Your task to perform on an android device: search for starred emails in the gmail app Image 0: 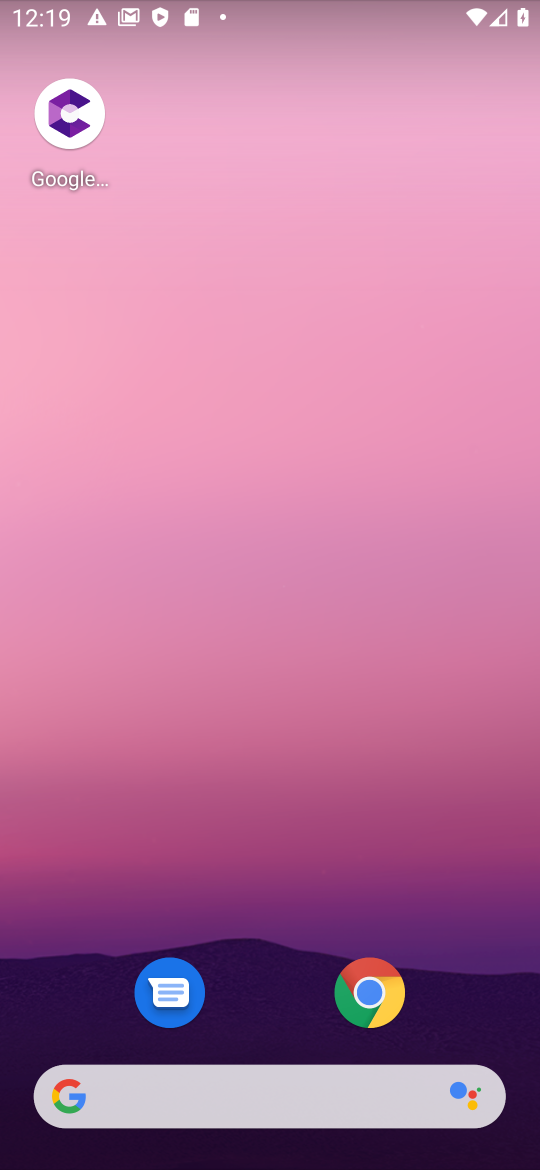
Step 0: press home button
Your task to perform on an android device: search for starred emails in the gmail app Image 1: 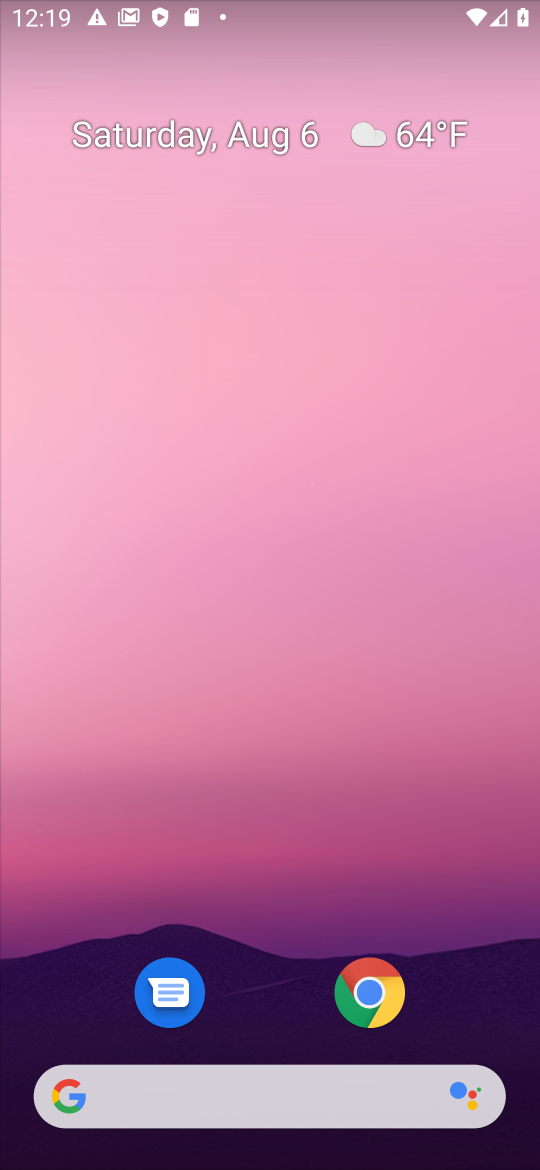
Step 1: drag from (328, 948) to (454, 361)
Your task to perform on an android device: search for starred emails in the gmail app Image 2: 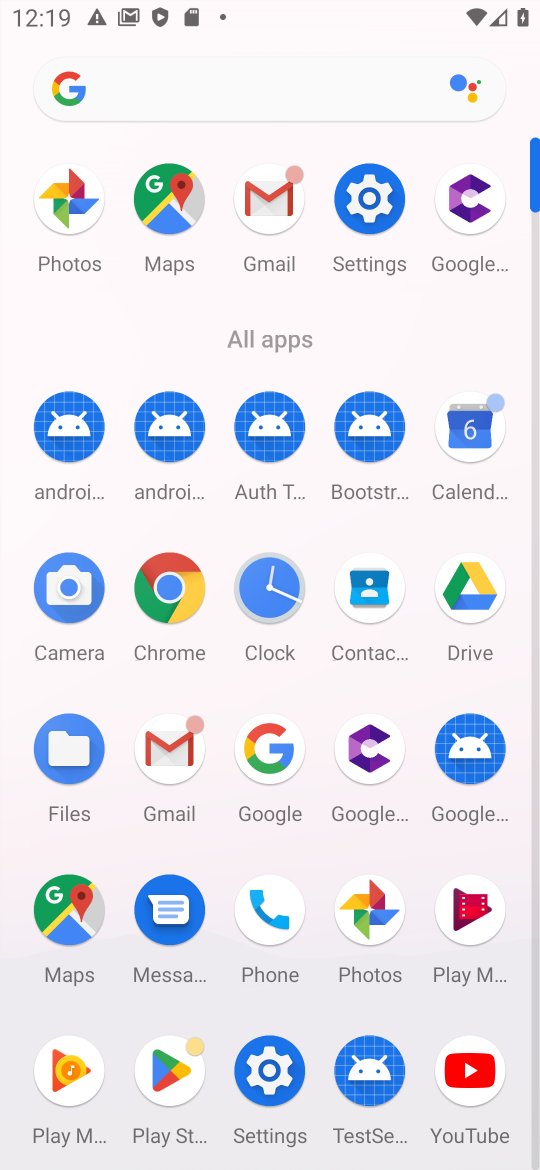
Step 2: click (261, 215)
Your task to perform on an android device: search for starred emails in the gmail app Image 3: 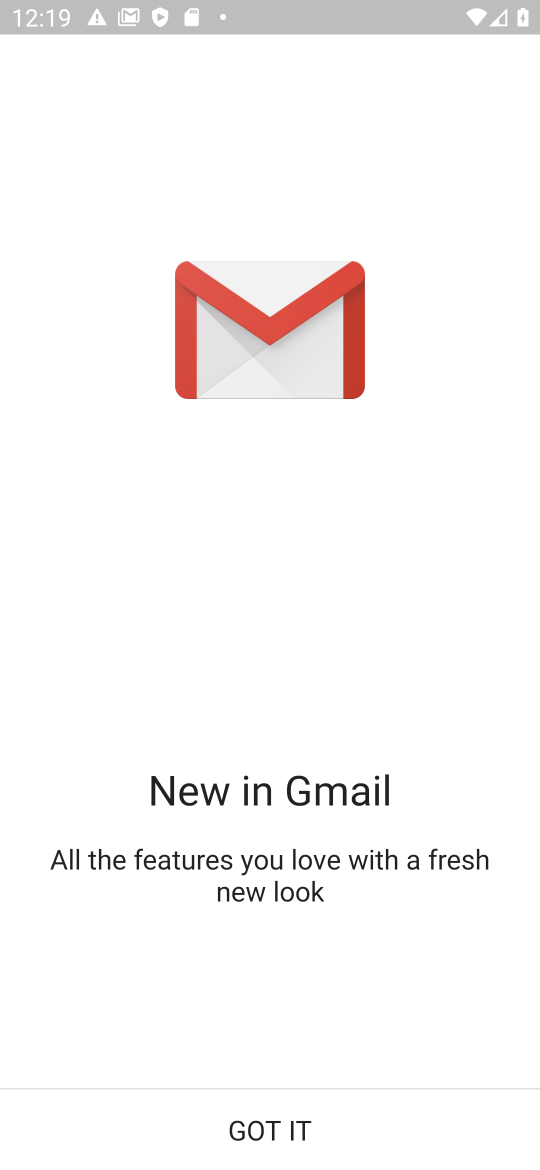
Step 3: click (279, 1129)
Your task to perform on an android device: search for starred emails in the gmail app Image 4: 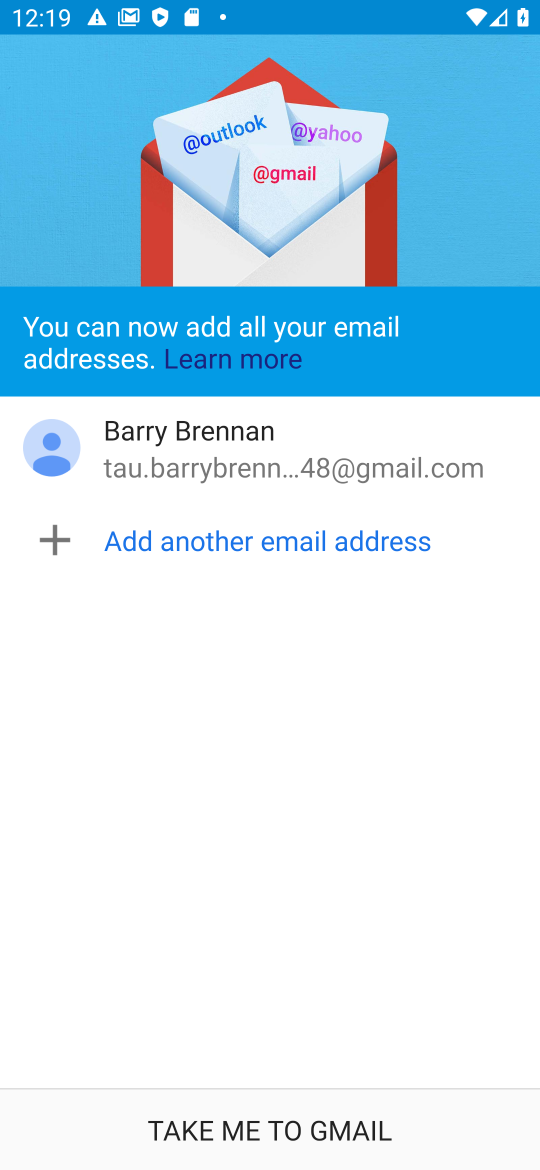
Step 4: click (279, 1130)
Your task to perform on an android device: search for starred emails in the gmail app Image 5: 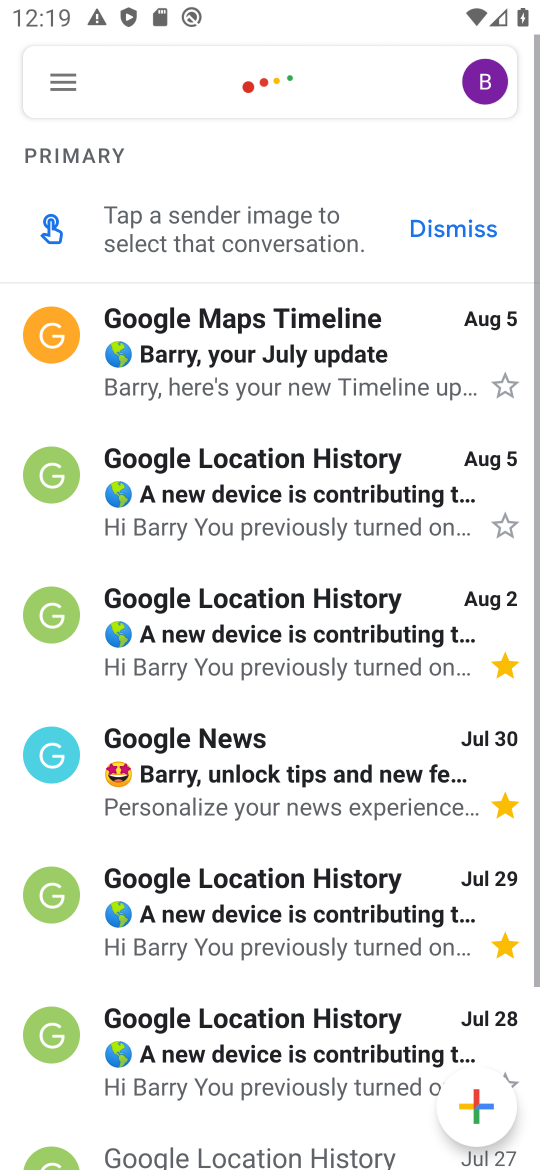
Step 5: click (48, 78)
Your task to perform on an android device: search for starred emails in the gmail app Image 6: 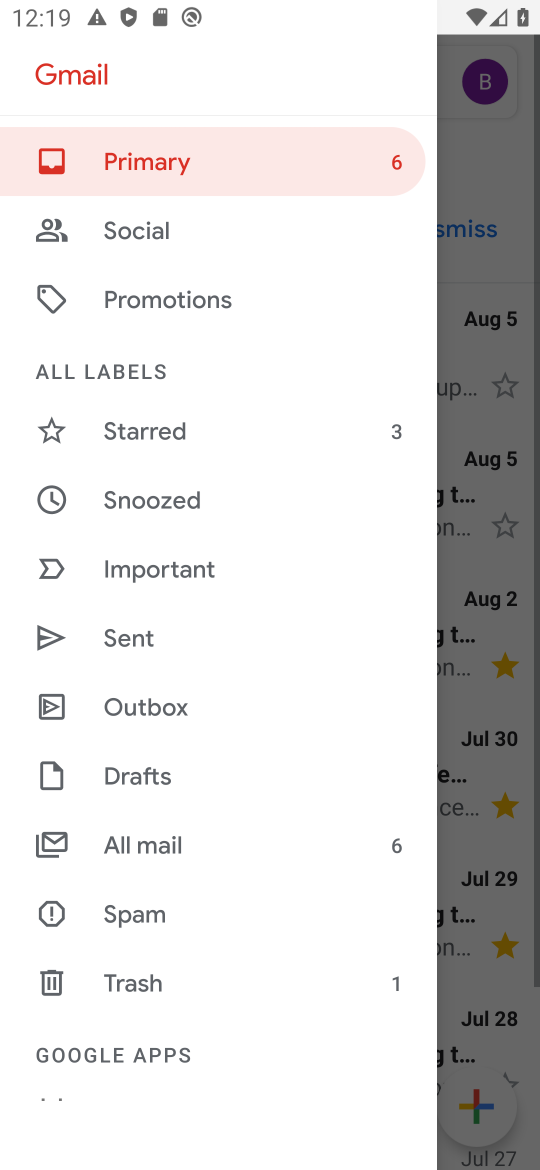
Step 6: click (139, 428)
Your task to perform on an android device: search for starred emails in the gmail app Image 7: 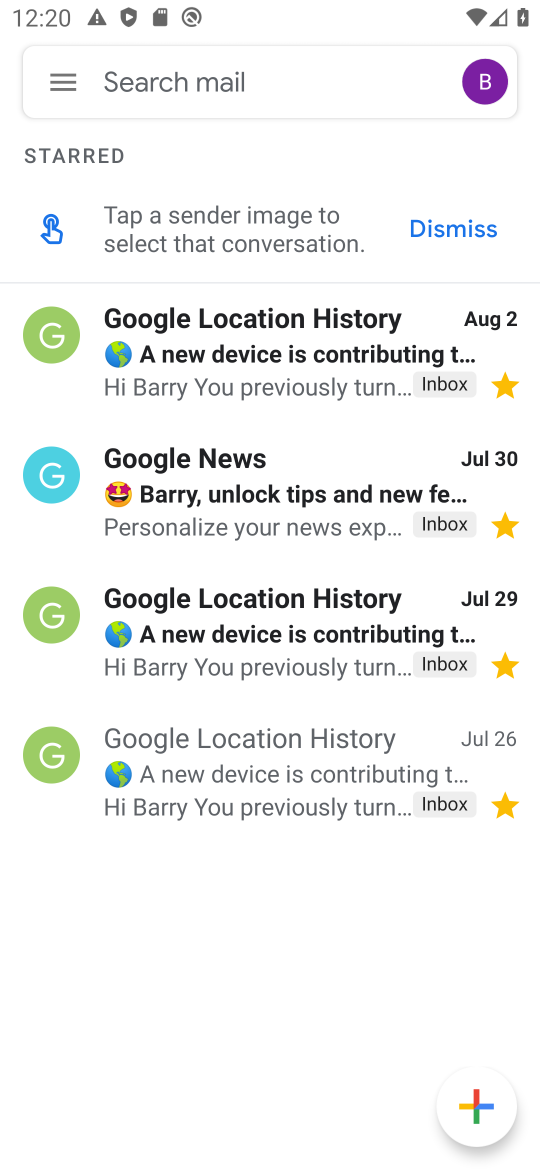
Step 7: task complete